Your task to perform on an android device: Go to Google maps Image 0: 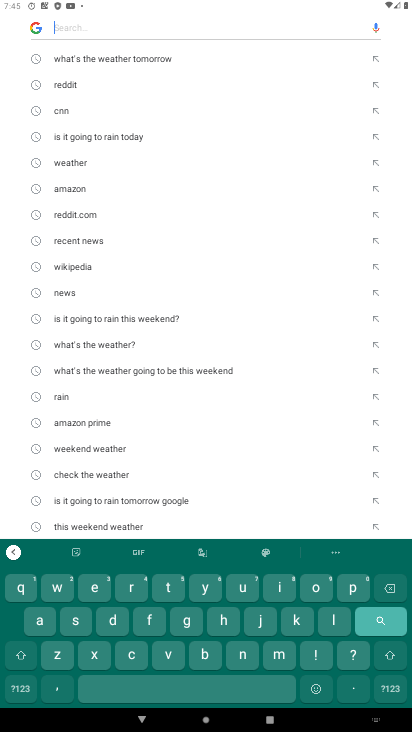
Step 0: press home button
Your task to perform on an android device: Go to Google maps Image 1: 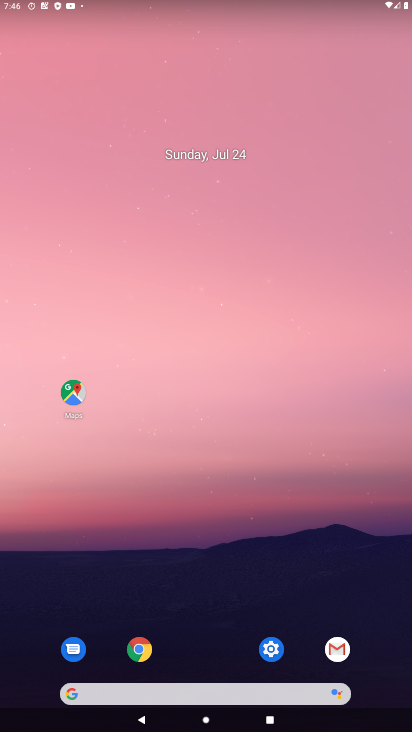
Step 1: click (80, 390)
Your task to perform on an android device: Go to Google maps Image 2: 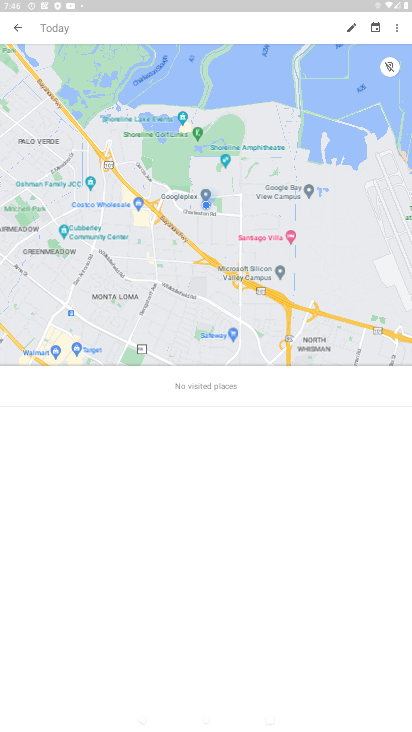
Step 2: click (23, 31)
Your task to perform on an android device: Go to Google maps Image 3: 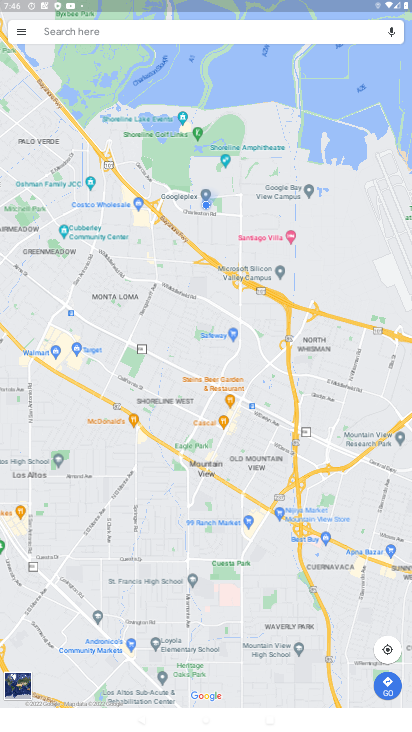
Step 3: click (376, 643)
Your task to perform on an android device: Go to Google maps Image 4: 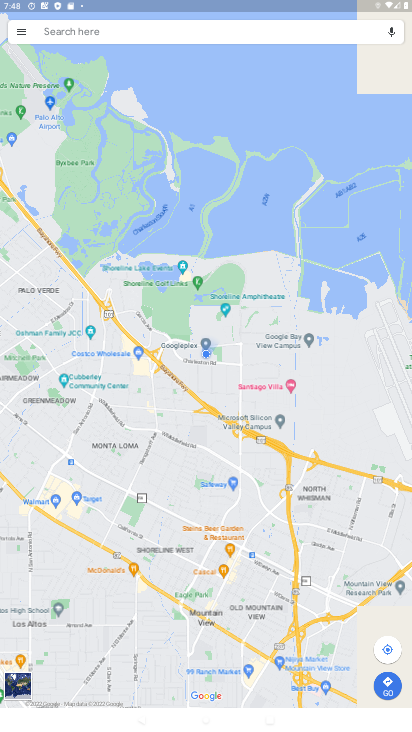
Step 4: task complete